Your task to perform on an android device: Open battery settings Image 0: 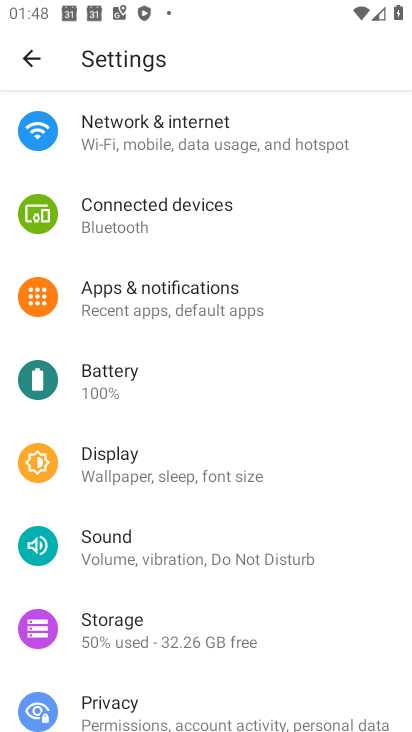
Step 0: click (99, 377)
Your task to perform on an android device: Open battery settings Image 1: 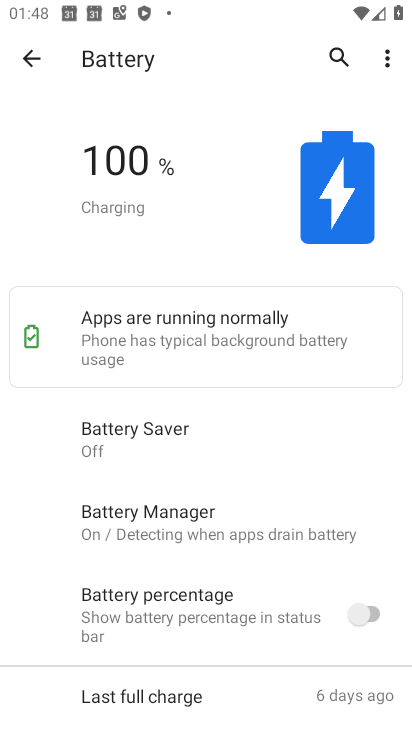
Step 1: task complete